Your task to perform on an android device: What's the US dollar exchange rateagainst the Swiss Franc? Image 0: 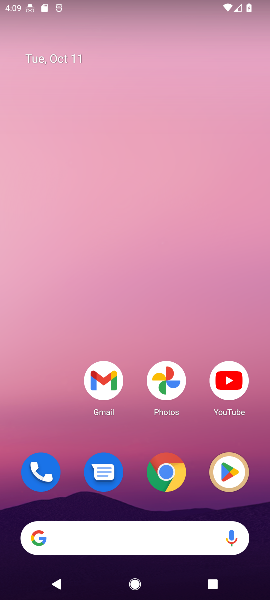
Step 0: click (153, 474)
Your task to perform on an android device: What's the US dollar exchange rateagainst the Swiss Franc? Image 1: 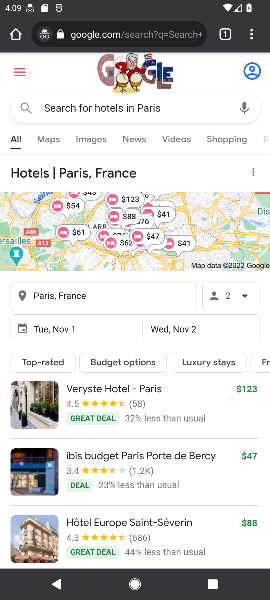
Step 1: click (191, 34)
Your task to perform on an android device: What's the US dollar exchange rateagainst the Swiss Franc? Image 2: 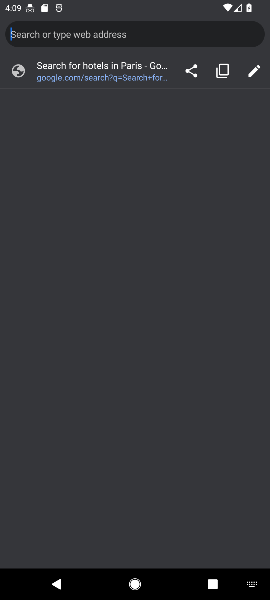
Step 2: type "What's the US dollar exchange rateagainst the Swiss Franc?"
Your task to perform on an android device: What's the US dollar exchange rateagainst the Swiss Franc? Image 3: 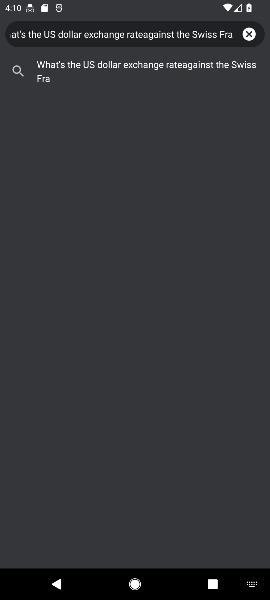
Step 3: click (161, 60)
Your task to perform on an android device: What's the US dollar exchange rateagainst the Swiss Franc? Image 4: 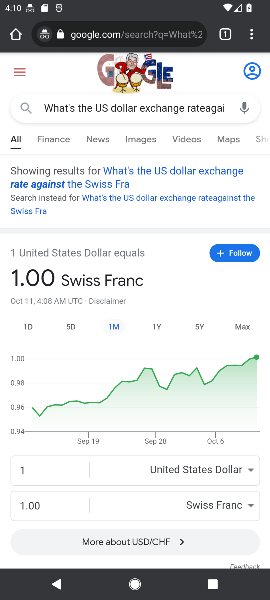
Step 4: task complete